Your task to perform on an android device: Search for logitech g502 on target, select the first entry, and add it to the cart. Image 0: 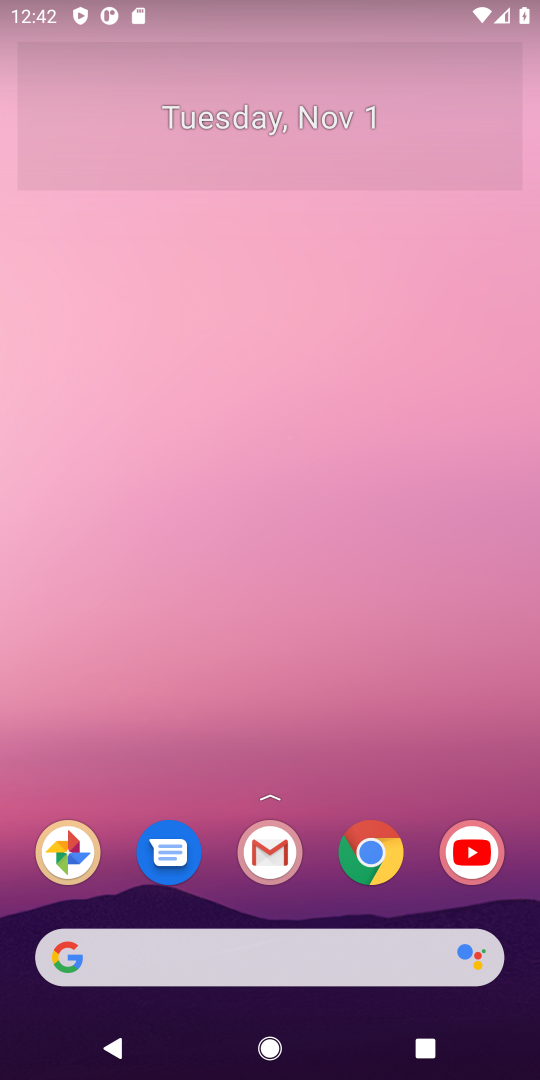
Step 0: click (386, 866)
Your task to perform on an android device: Search for logitech g502 on target, select the first entry, and add it to the cart. Image 1: 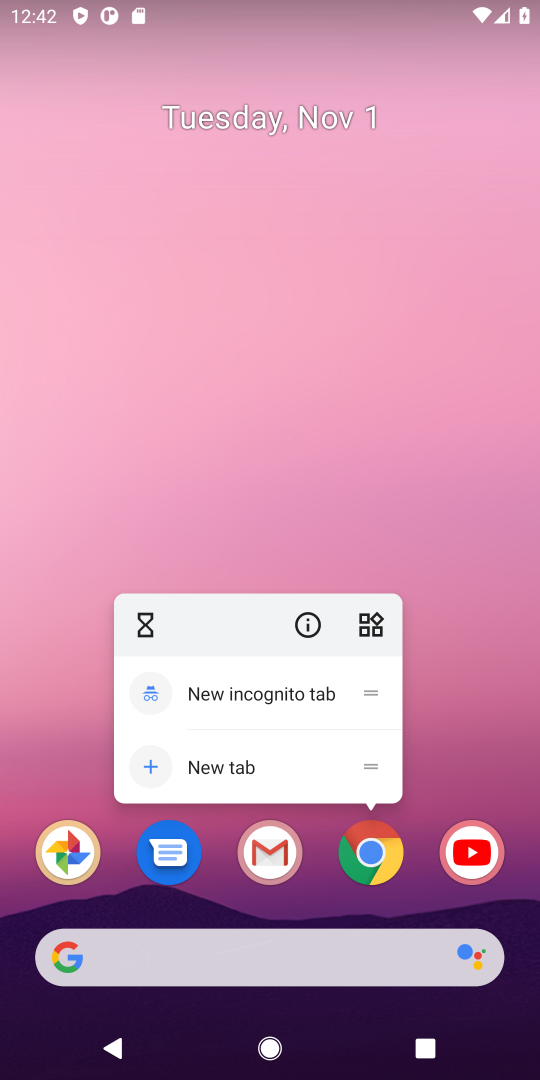
Step 1: click (359, 878)
Your task to perform on an android device: Search for logitech g502 on target, select the first entry, and add it to the cart. Image 2: 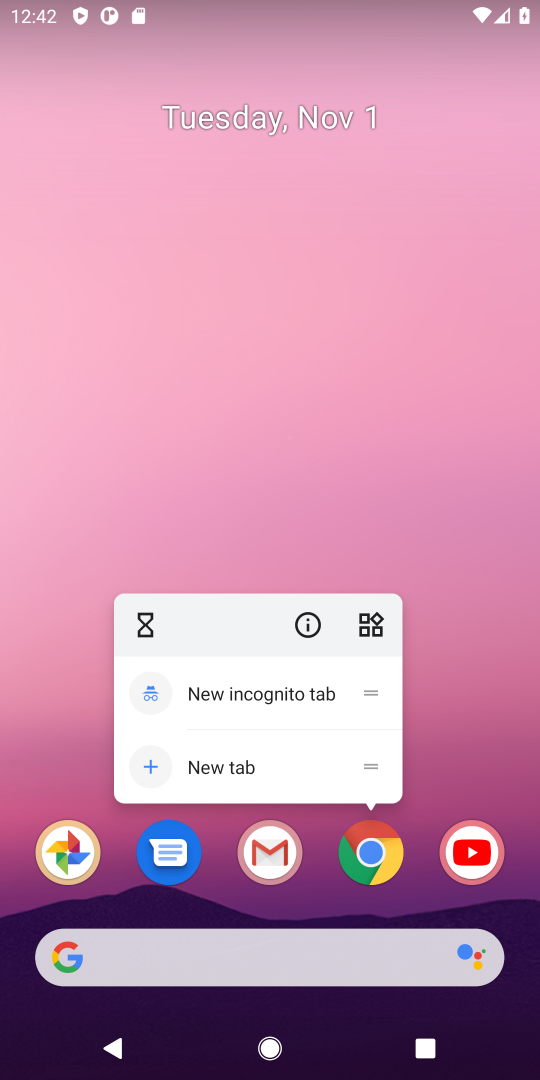
Step 2: click (386, 851)
Your task to perform on an android device: Search for logitech g502 on target, select the first entry, and add it to the cart. Image 3: 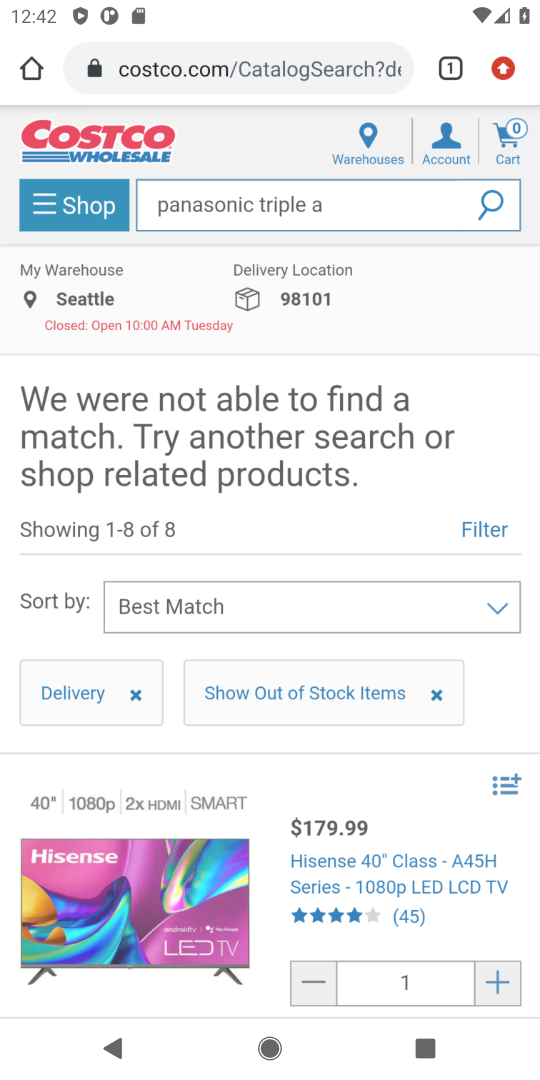
Step 3: click (367, 865)
Your task to perform on an android device: Search for logitech g502 on target, select the first entry, and add it to the cart. Image 4: 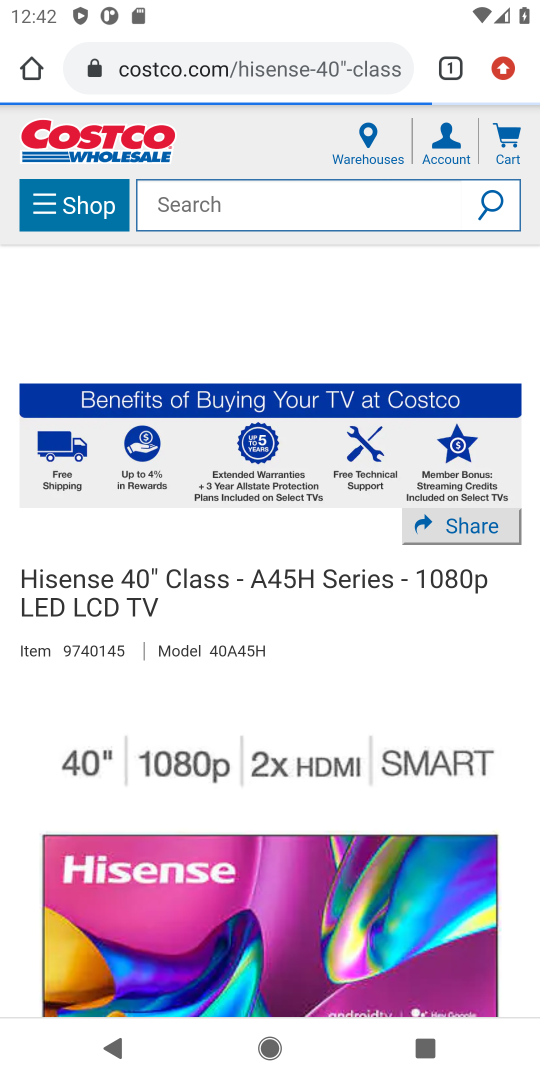
Step 4: click (320, 72)
Your task to perform on an android device: Search for logitech g502 on target, select the first entry, and add it to the cart. Image 5: 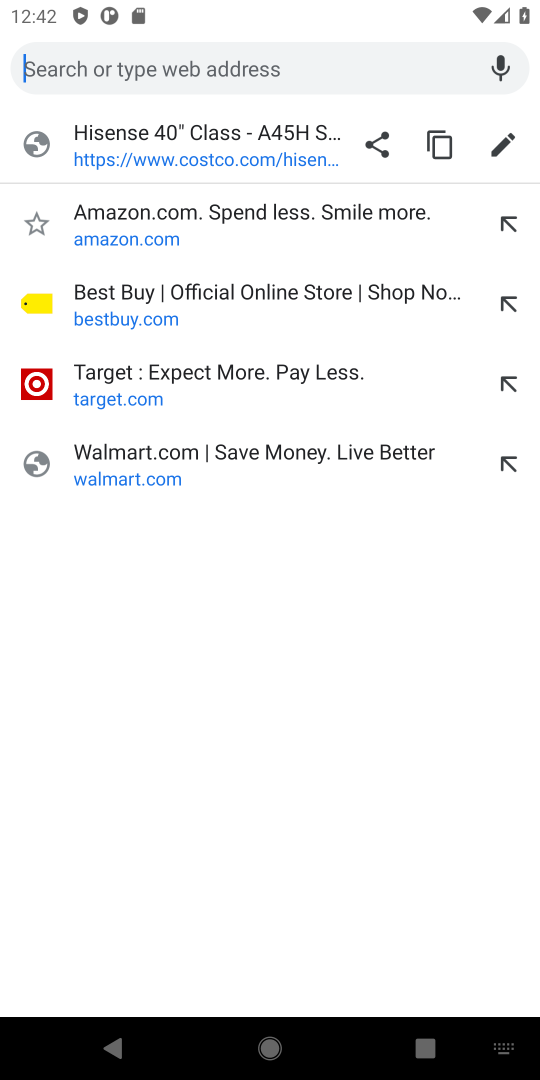
Step 5: type "target"
Your task to perform on an android device: Search for logitech g502 on target, select the first entry, and add it to the cart. Image 6: 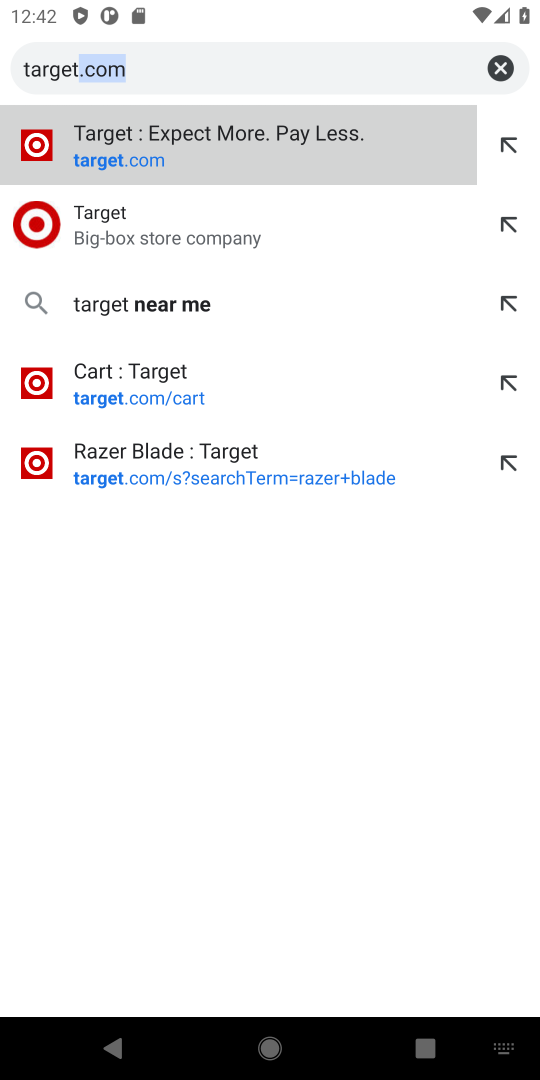
Step 6: press enter
Your task to perform on an android device: Search for logitech g502 on target, select the first entry, and add it to the cart. Image 7: 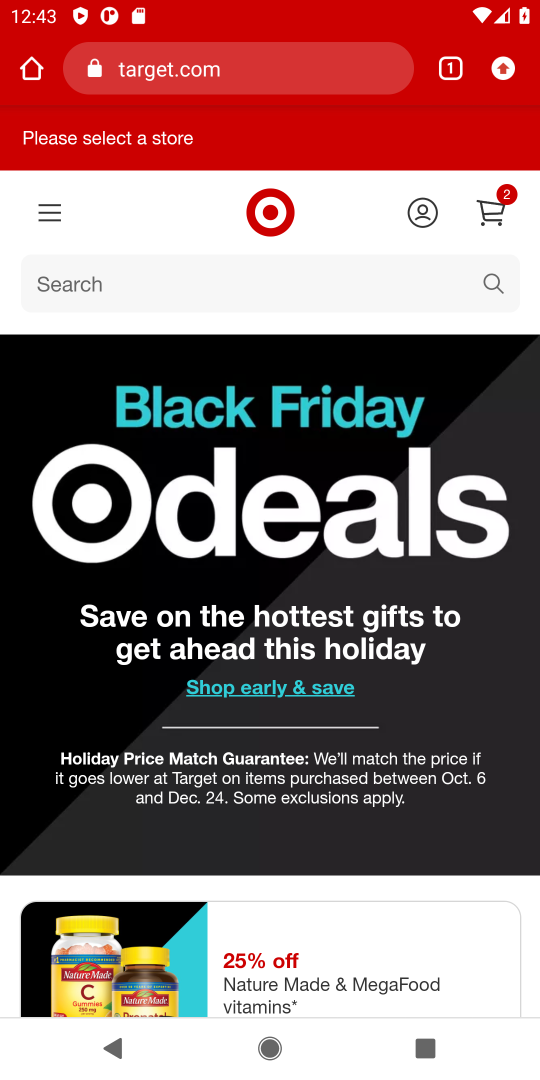
Step 7: click (252, 277)
Your task to perform on an android device: Search for logitech g502 on target, select the first entry, and add it to the cart. Image 8: 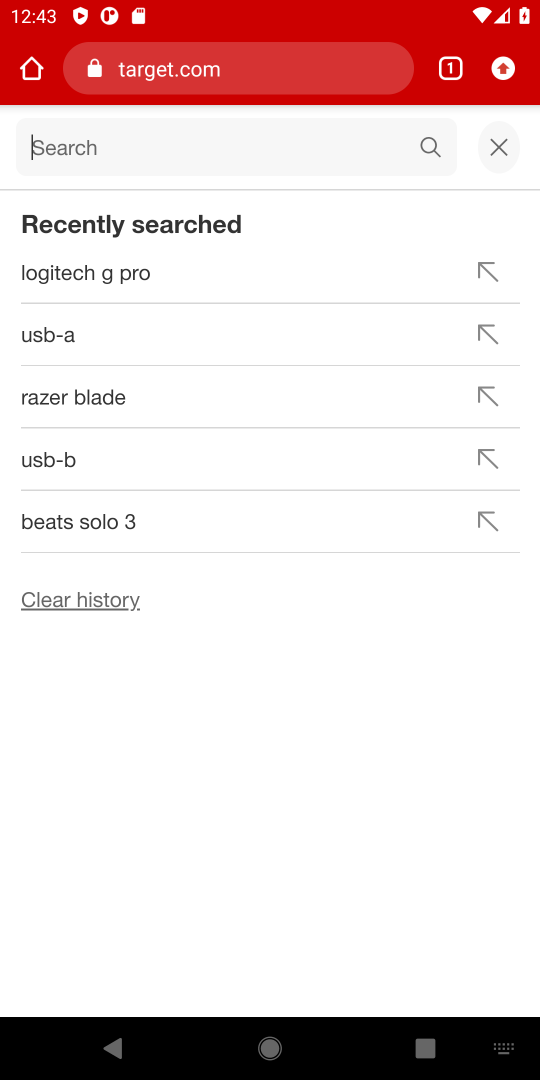
Step 8: type "logitech g502"
Your task to perform on an android device: Search for logitech g502 on target, select the first entry, and add it to the cart. Image 9: 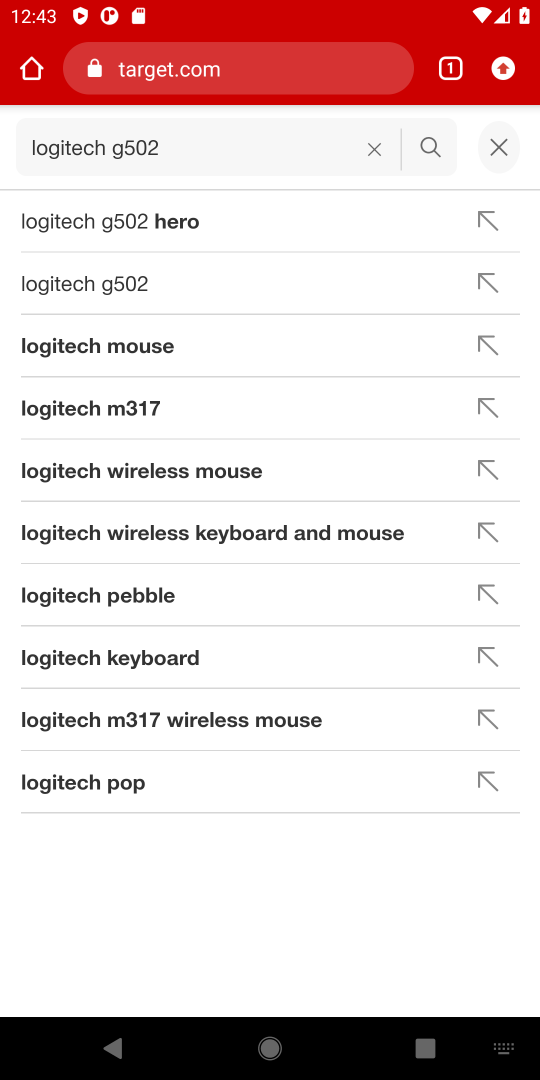
Step 9: press enter
Your task to perform on an android device: Search for logitech g502 on target, select the first entry, and add it to the cart. Image 10: 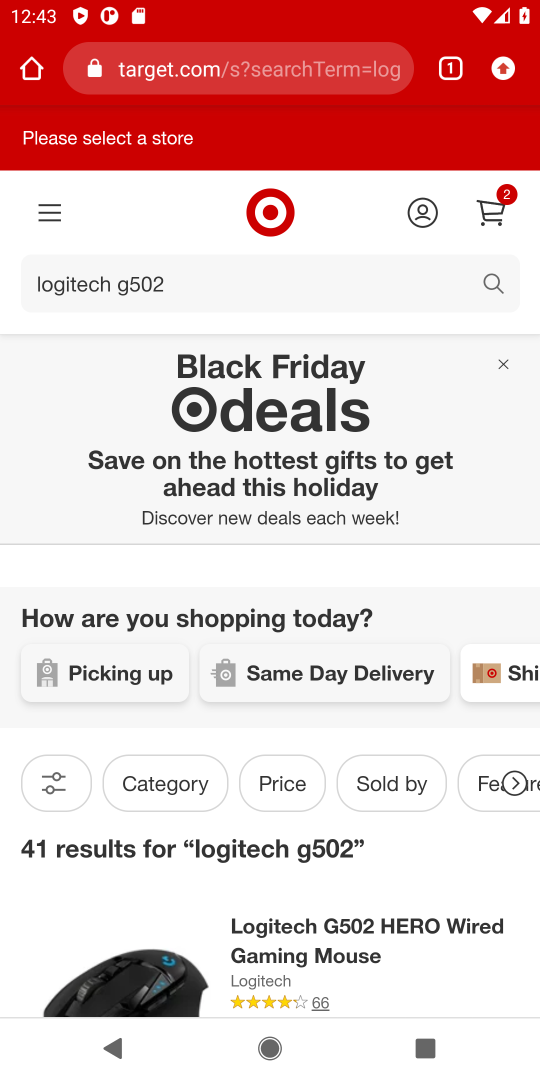
Step 10: drag from (449, 930) to (468, 560)
Your task to perform on an android device: Search for logitech g502 on target, select the first entry, and add it to the cart. Image 11: 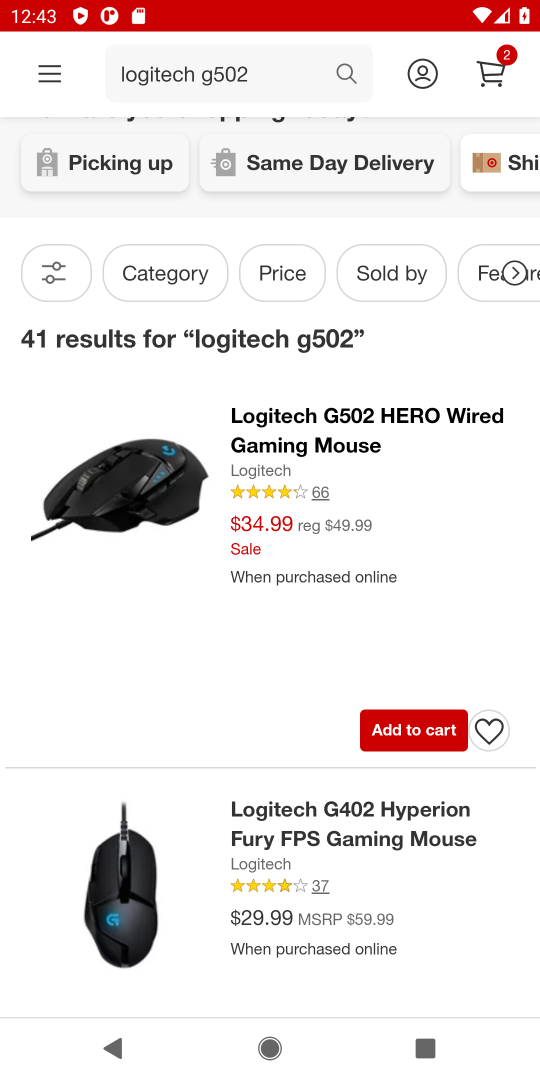
Step 11: click (293, 445)
Your task to perform on an android device: Search for logitech g502 on target, select the first entry, and add it to the cart. Image 12: 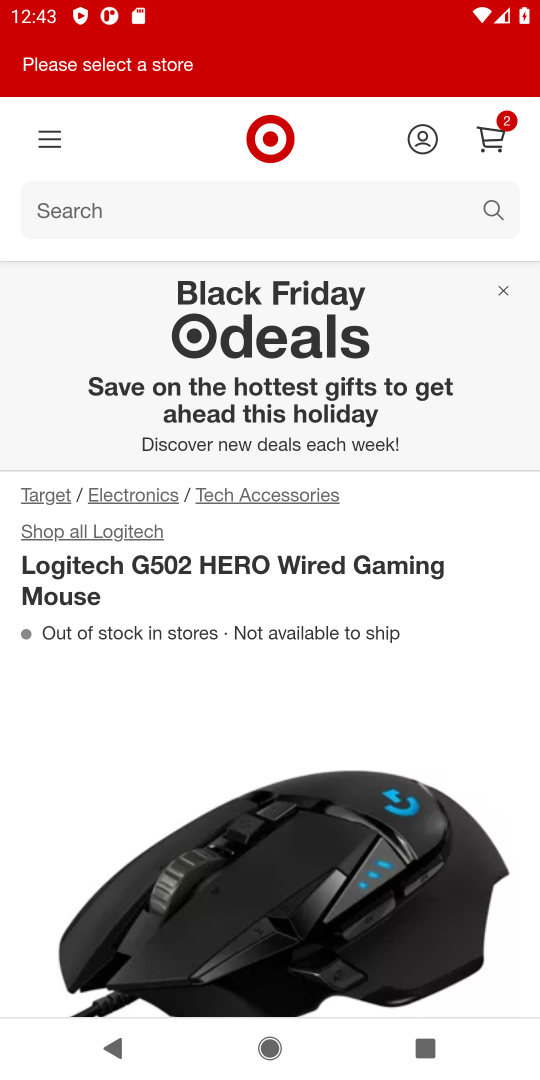
Step 12: drag from (392, 884) to (356, 322)
Your task to perform on an android device: Search for logitech g502 on target, select the first entry, and add it to the cart. Image 13: 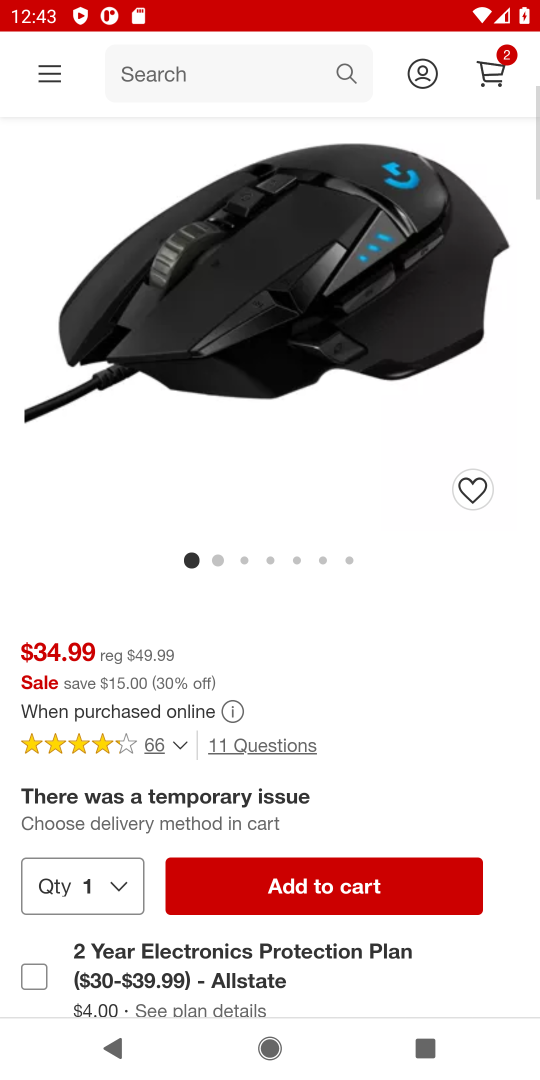
Step 13: drag from (411, 894) to (395, 809)
Your task to perform on an android device: Search for logitech g502 on target, select the first entry, and add it to the cart. Image 14: 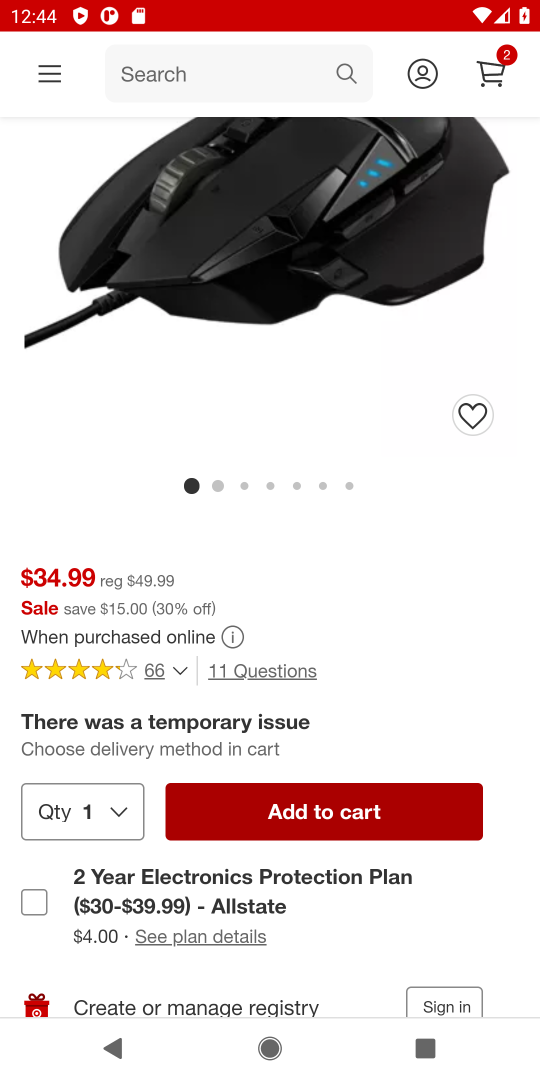
Step 14: click (391, 809)
Your task to perform on an android device: Search for logitech g502 on target, select the first entry, and add it to the cart. Image 15: 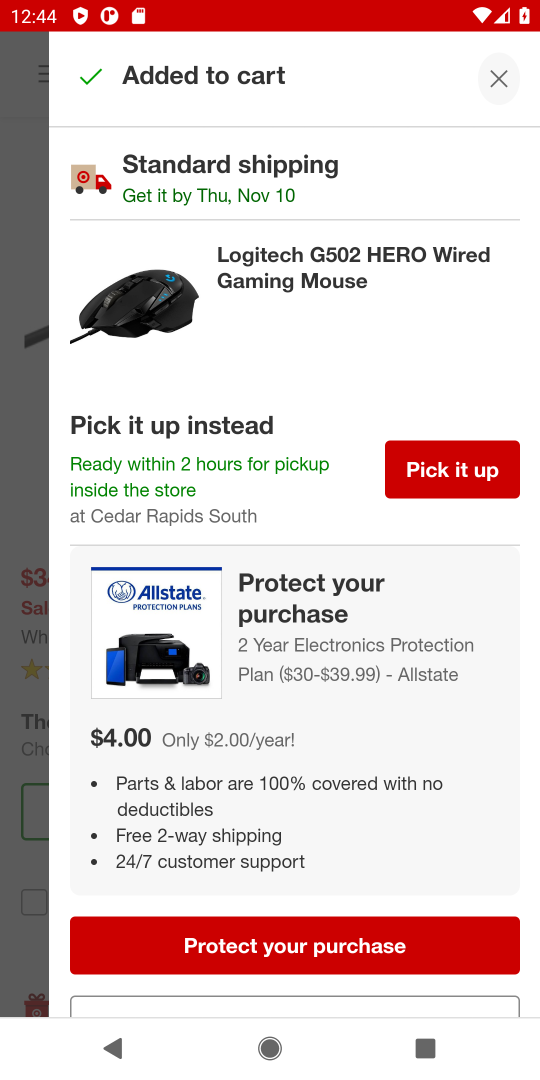
Step 15: drag from (440, 859) to (420, 598)
Your task to perform on an android device: Search for logitech g502 on target, select the first entry, and add it to the cart. Image 16: 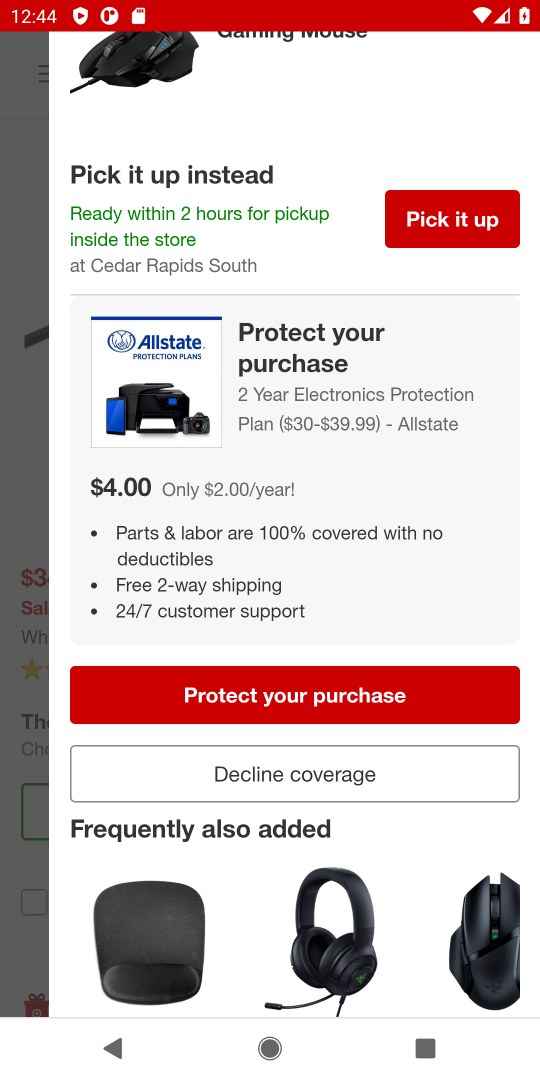
Step 16: click (342, 786)
Your task to perform on an android device: Search for logitech g502 on target, select the first entry, and add it to the cart. Image 17: 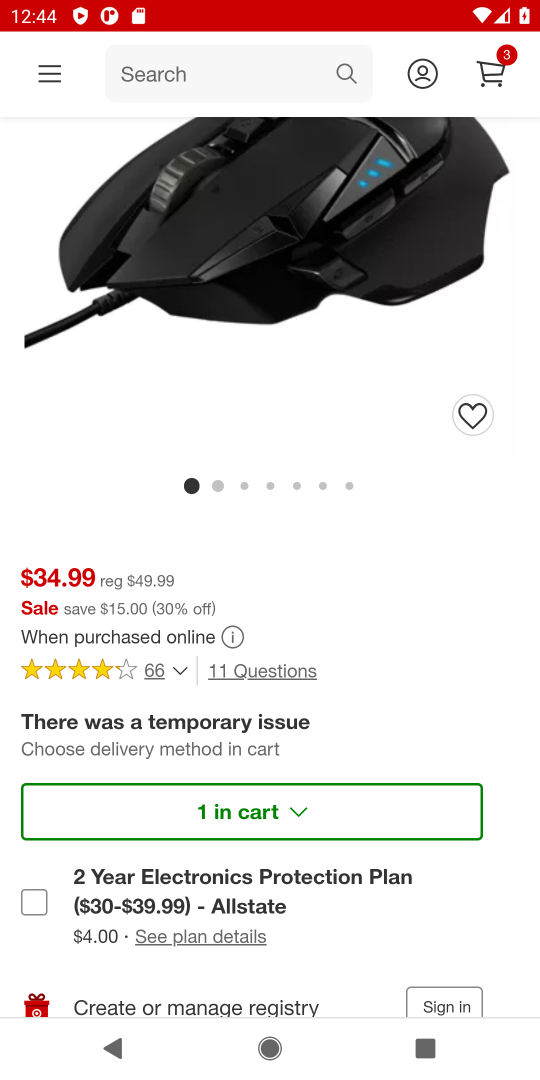
Step 17: task complete